Your task to perform on an android device: turn off wifi Image 0: 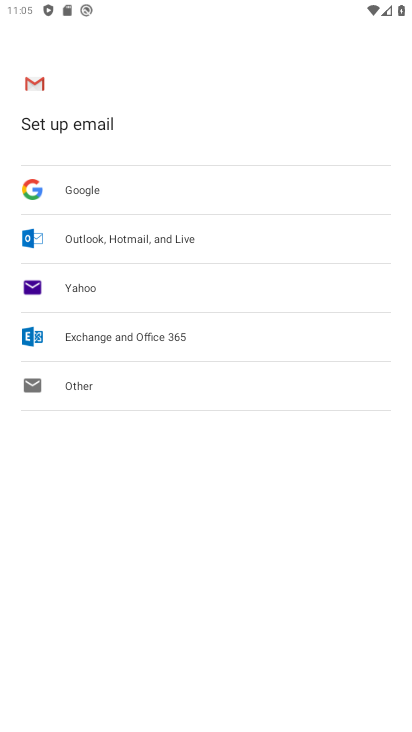
Step 0: press home button
Your task to perform on an android device: turn off wifi Image 1: 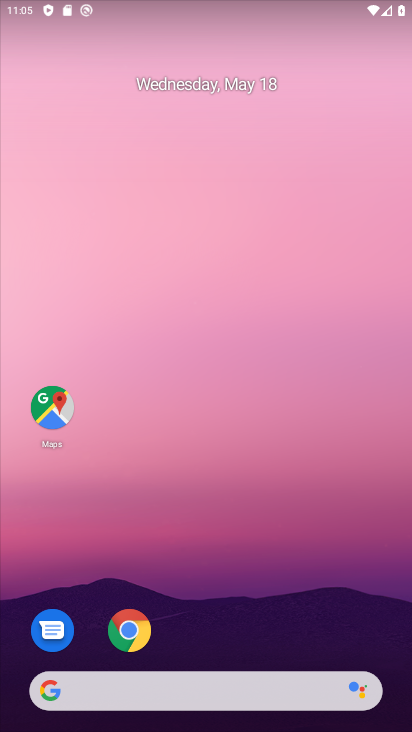
Step 1: drag from (264, 590) to (317, 27)
Your task to perform on an android device: turn off wifi Image 2: 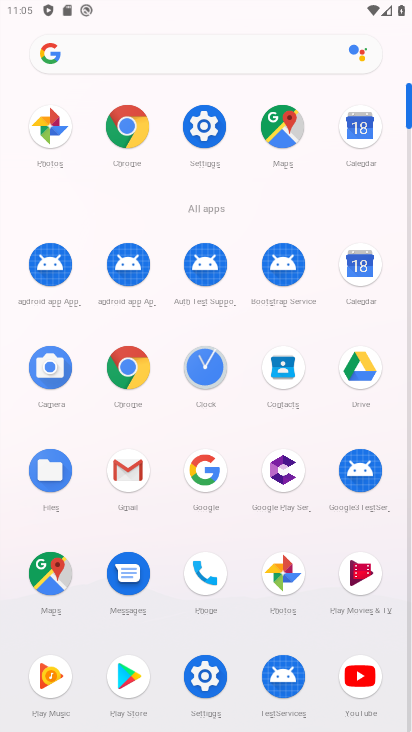
Step 2: click (218, 128)
Your task to perform on an android device: turn off wifi Image 3: 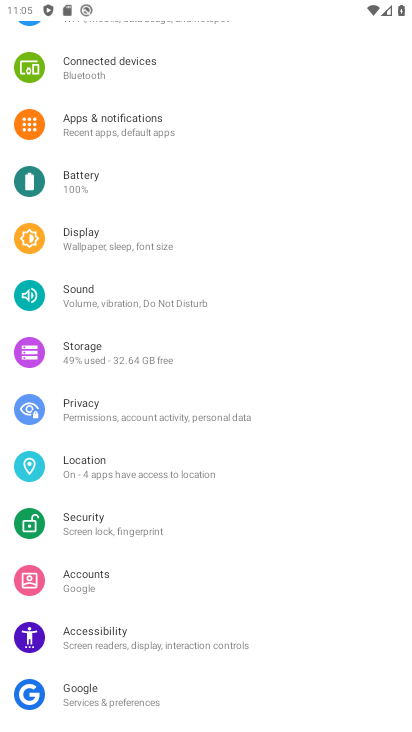
Step 3: drag from (202, 136) to (172, 360)
Your task to perform on an android device: turn off wifi Image 4: 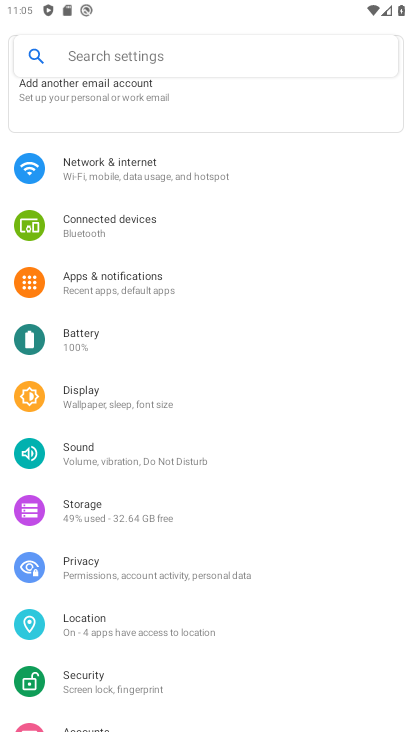
Step 4: click (168, 159)
Your task to perform on an android device: turn off wifi Image 5: 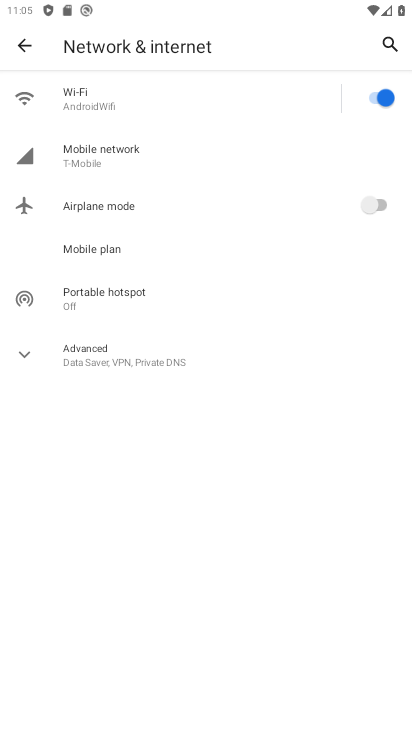
Step 5: click (371, 93)
Your task to perform on an android device: turn off wifi Image 6: 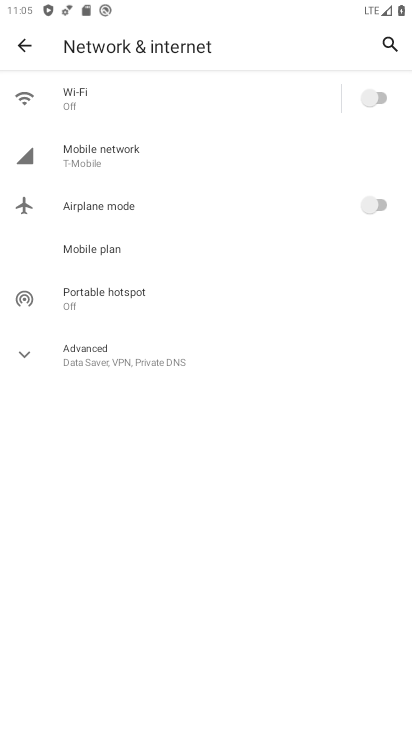
Step 6: task complete